Your task to perform on an android device: Do I have any events today? Image 0: 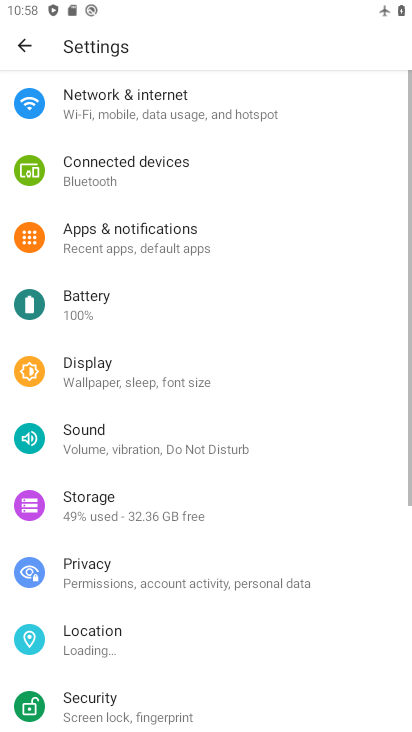
Step 0: press home button
Your task to perform on an android device: Do I have any events today? Image 1: 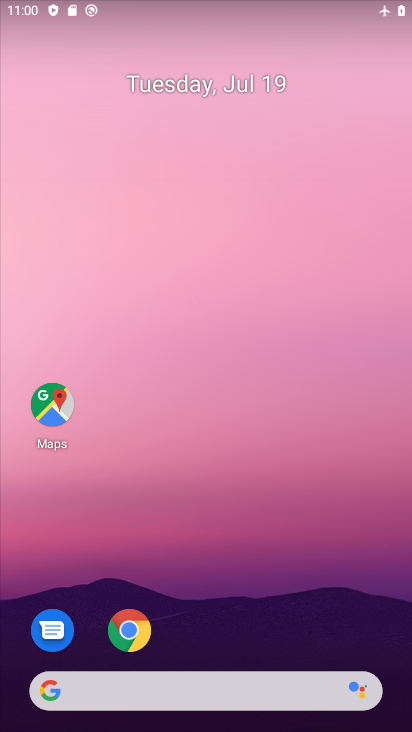
Step 1: drag from (259, 676) to (326, 143)
Your task to perform on an android device: Do I have any events today? Image 2: 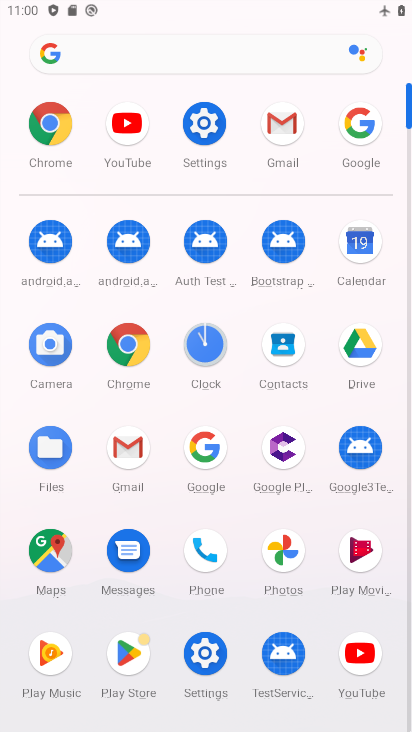
Step 2: click (360, 243)
Your task to perform on an android device: Do I have any events today? Image 3: 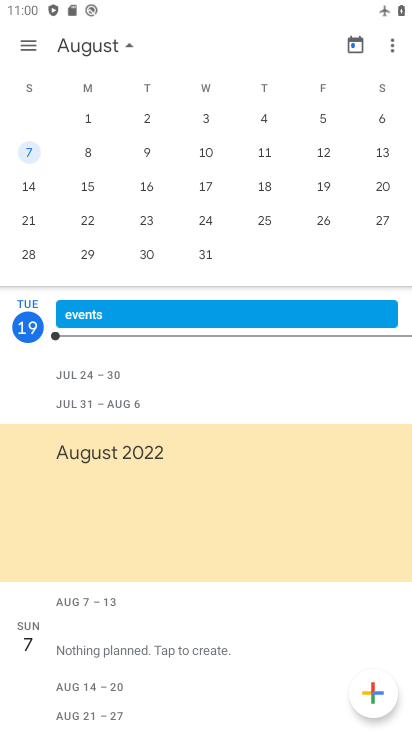
Step 3: click (33, 152)
Your task to perform on an android device: Do I have any events today? Image 4: 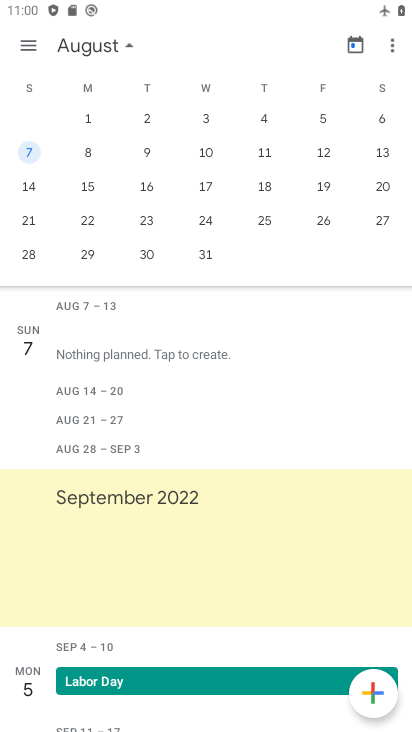
Step 4: task complete